Your task to perform on an android device: Open Chrome and go to the settings page Image 0: 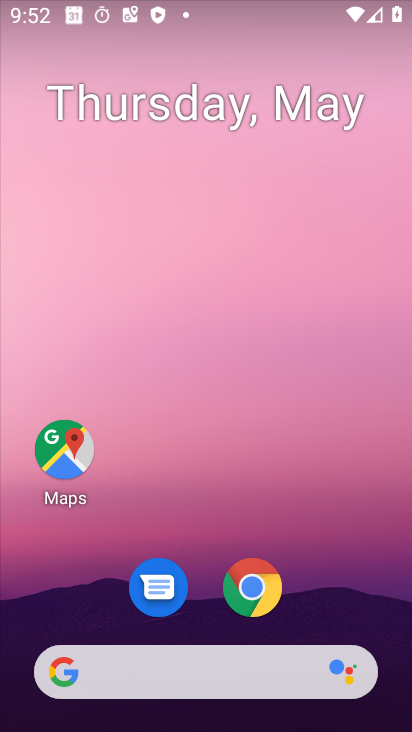
Step 0: click (251, 587)
Your task to perform on an android device: Open Chrome and go to the settings page Image 1: 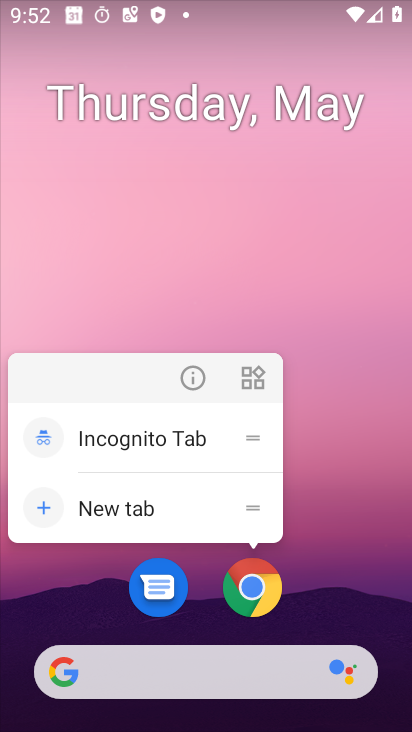
Step 1: click (249, 590)
Your task to perform on an android device: Open Chrome and go to the settings page Image 2: 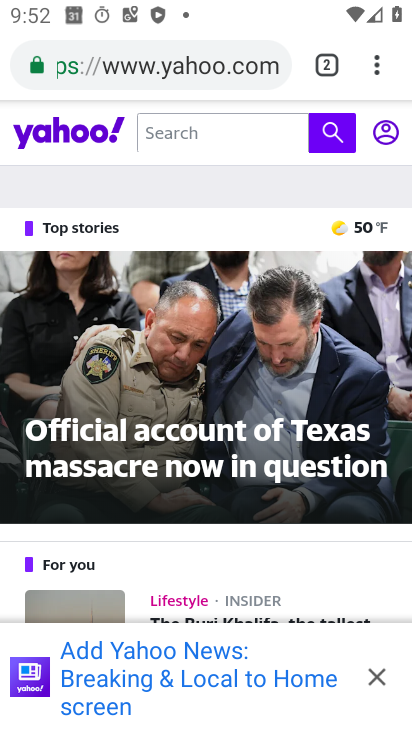
Step 2: click (375, 73)
Your task to perform on an android device: Open Chrome and go to the settings page Image 3: 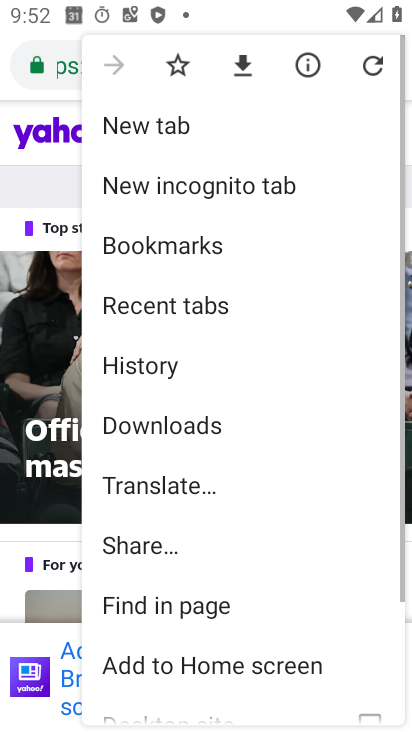
Step 3: drag from (232, 528) to (238, 78)
Your task to perform on an android device: Open Chrome and go to the settings page Image 4: 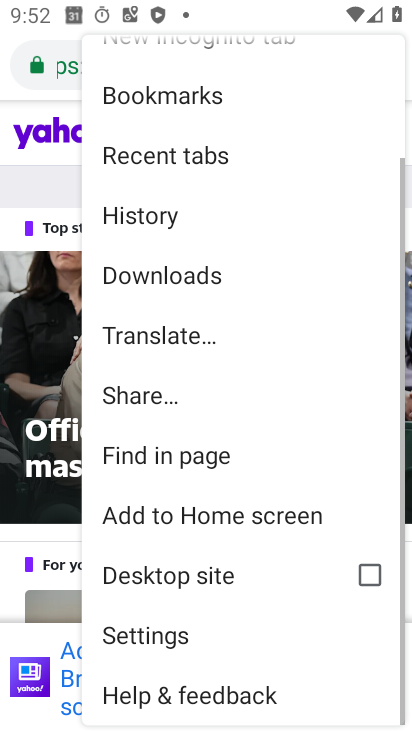
Step 4: click (157, 626)
Your task to perform on an android device: Open Chrome and go to the settings page Image 5: 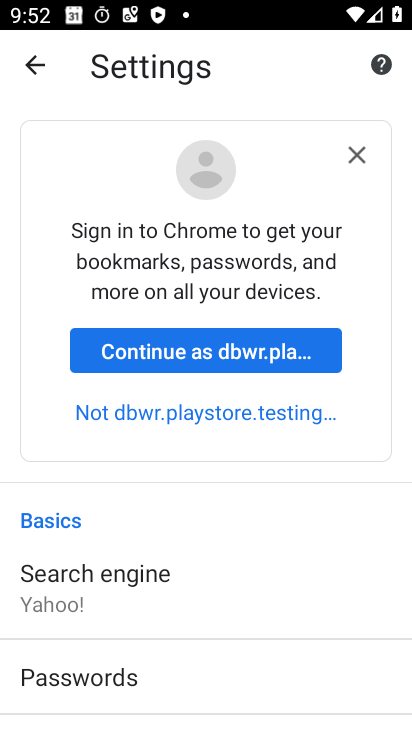
Step 5: task complete